Your task to perform on an android device: What is the recent news? Image 0: 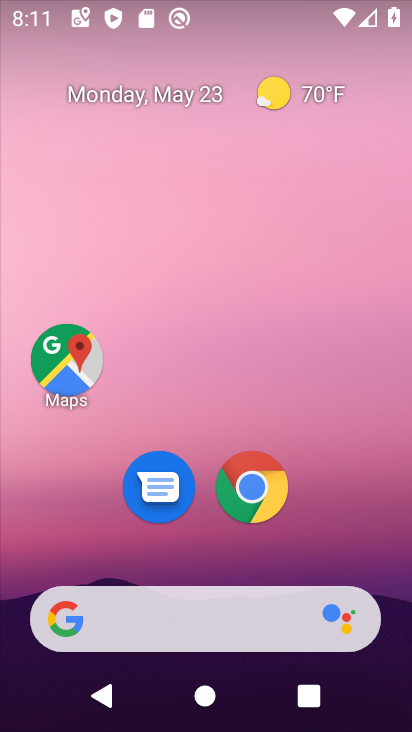
Step 0: drag from (239, 583) to (251, 209)
Your task to perform on an android device: What is the recent news? Image 1: 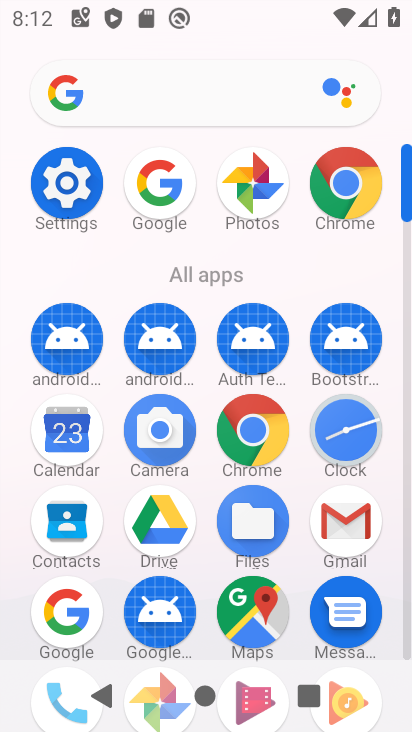
Step 1: click (160, 177)
Your task to perform on an android device: What is the recent news? Image 2: 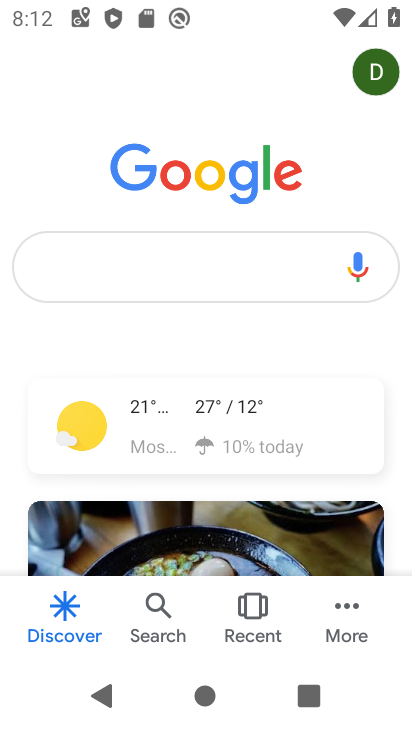
Step 2: click (203, 282)
Your task to perform on an android device: What is the recent news? Image 3: 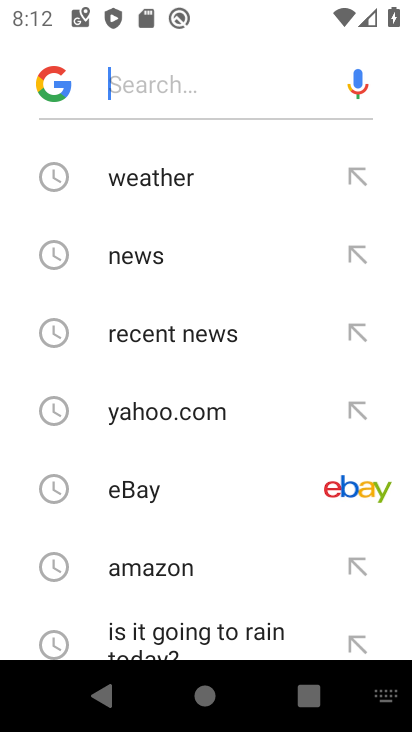
Step 3: click (165, 347)
Your task to perform on an android device: What is the recent news? Image 4: 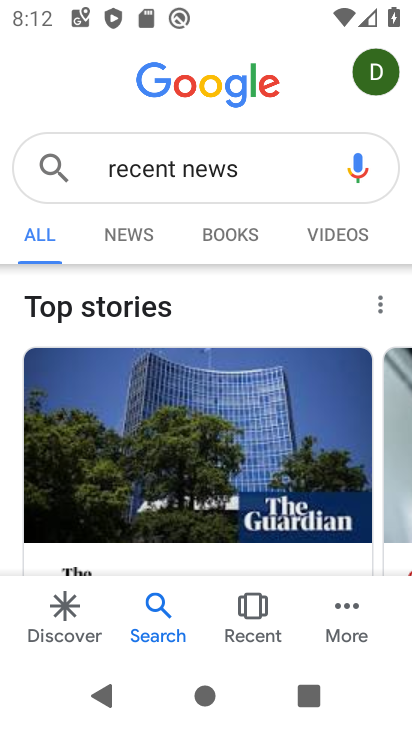
Step 4: task complete